Your task to perform on an android device: Do I have any events tomorrow? Image 0: 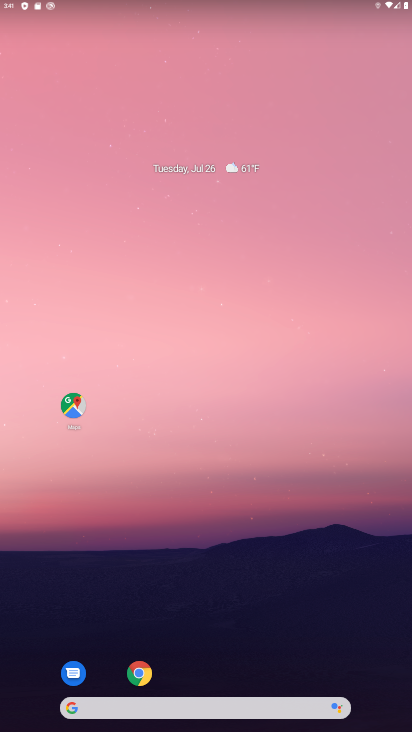
Step 0: press home button
Your task to perform on an android device: Do I have any events tomorrow? Image 1: 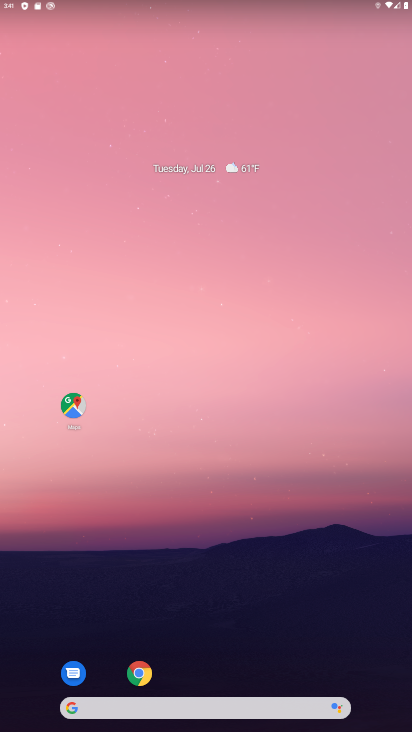
Step 1: drag from (217, 682) to (309, 96)
Your task to perform on an android device: Do I have any events tomorrow? Image 2: 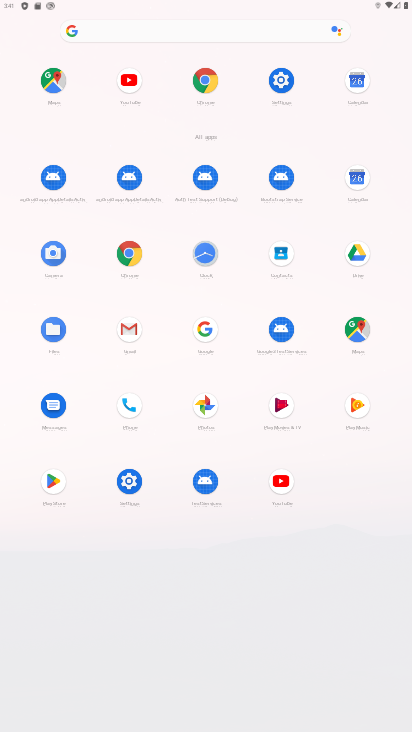
Step 2: click (349, 170)
Your task to perform on an android device: Do I have any events tomorrow? Image 3: 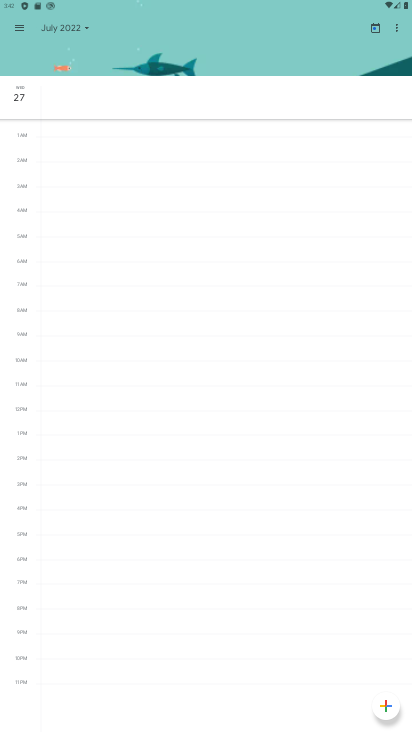
Step 3: click (23, 97)
Your task to perform on an android device: Do I have any events tomorrow? Image 4: 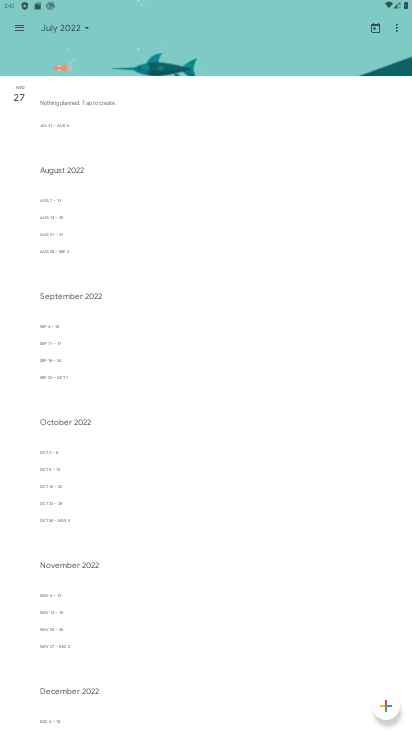
Step 4: click (84, 21)
Your task to perform on an android device: Do I have any events tomorrow? Image 5: 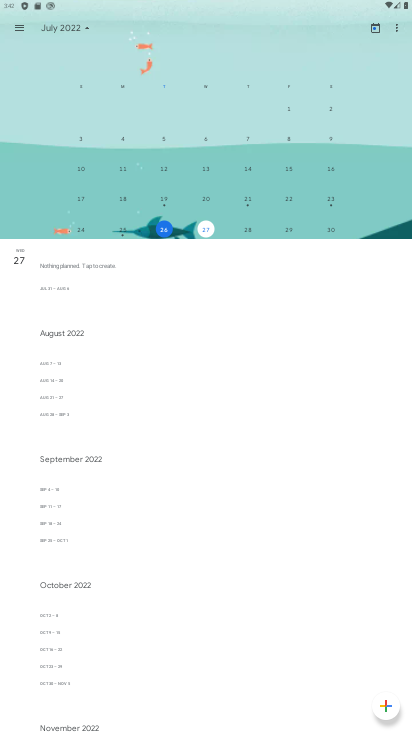
Step 5: click (19, 28)
Your task to perform on an android device: Do I have any events tomorrow? Image 6: 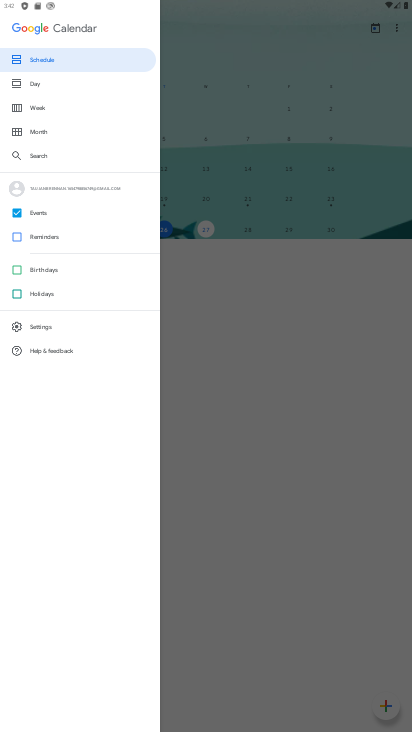
Step 6: click (45, 62)
Your task to perform on an android device: Do I have any events tomorrow? Image 7: 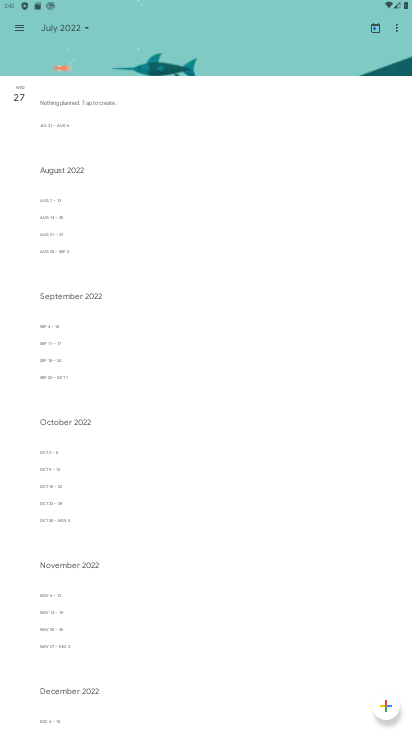
Step 7: click (86, 25)
Your task to perform on an android device: Do I have any events tomorrow? Image 8: 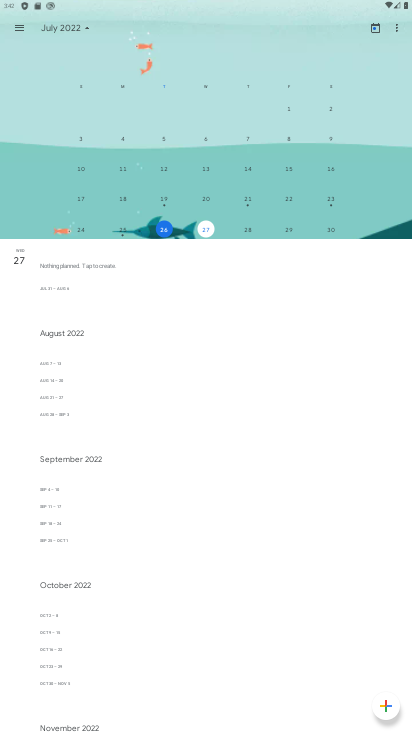
Step 8: click (205, 227)
Your task to perform on an android device: Do I have any events tomorrow? Image 9: 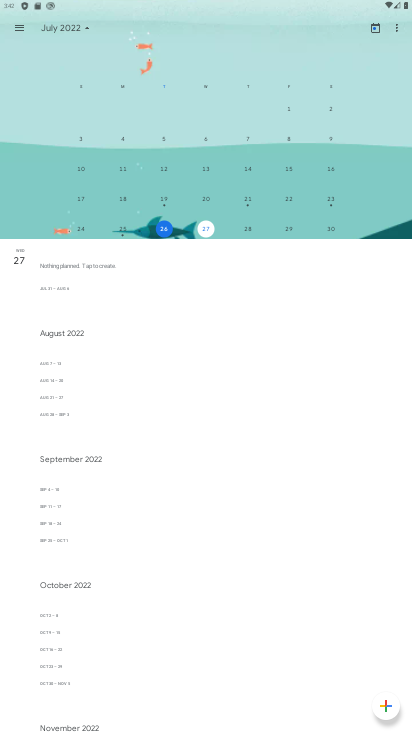
Step 9: click (91, 27)
Your task to perform on an android device: Do I have any events tomorrow? Image 10: 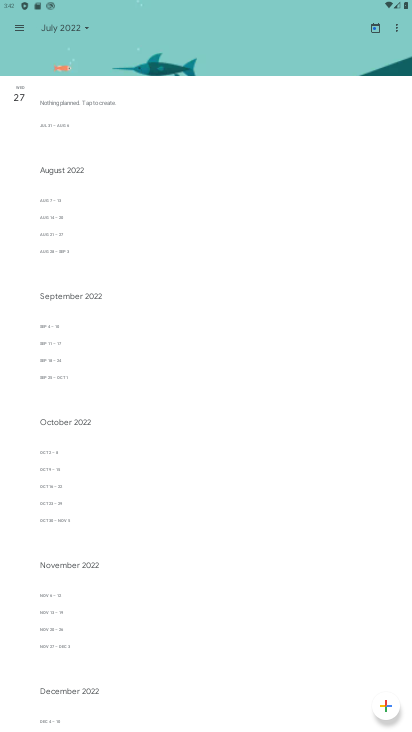
Step 10: click (18, 92)
Your task to perform on an android device: Do I have any events tomorrow? Image 11: 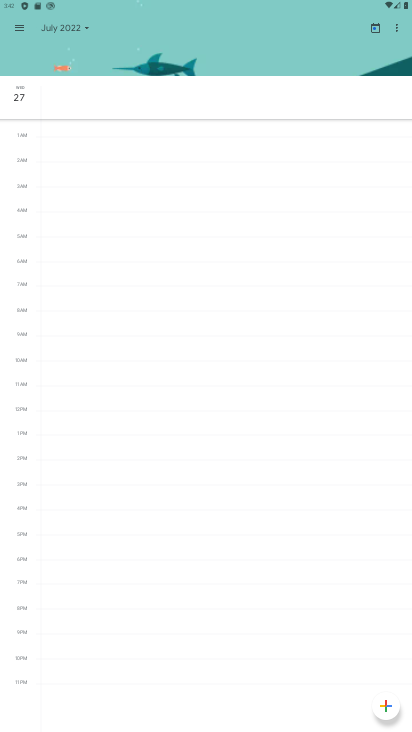
Step 11: task complete